Your task to perform on an android device: Open Maps and search for coffee Image 0: 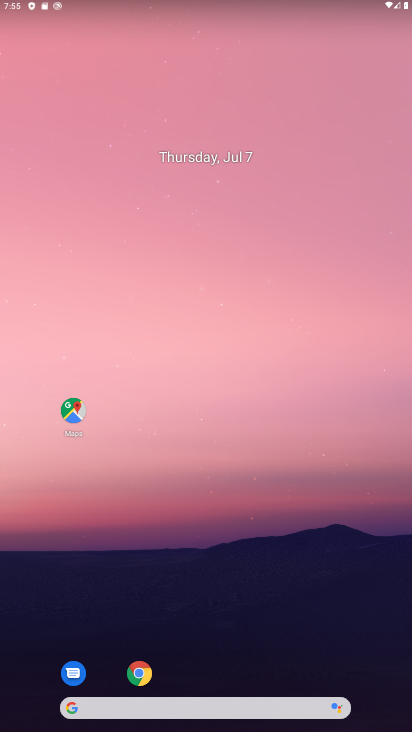
Step 0: click (78, 409)
Your task to perform on an android device: Open Maps and search for coffee Image 1: 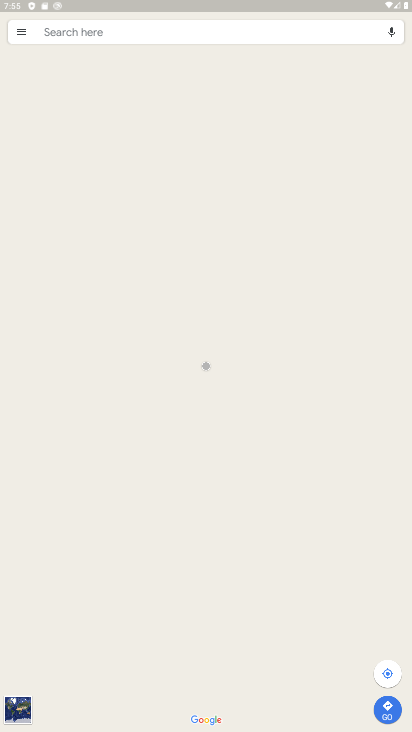
Step 1: click (184, 34)
Your task to perform on an android device: Open Maps and search for coffee Image 2: 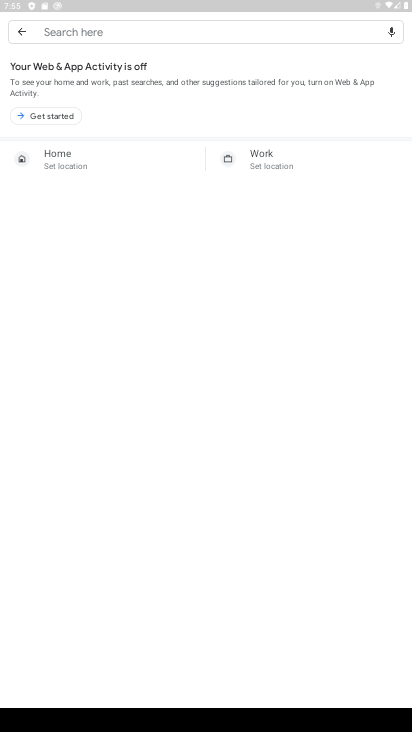
Step 2: type "coffee"
Your task to perform on an android device: Open Maps and search for coffee Image 3: 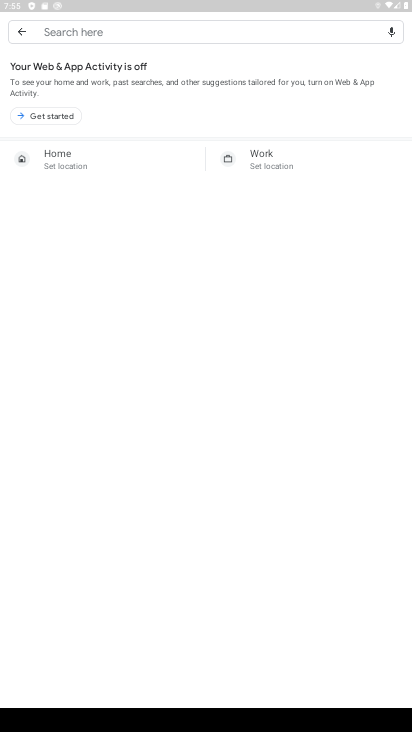
Step 3: click (124, 31)
Your task to perform on an android device: Open Maps and search for coffee Image 4: 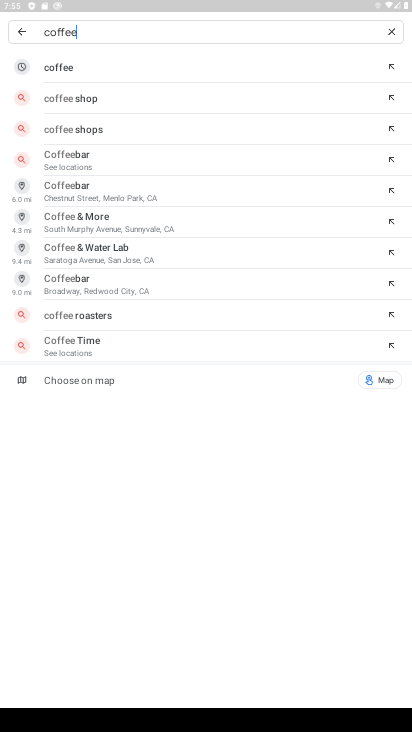
Step 4: click (42, 65)
Your task to perform on an android device: Open Maps and search for coffee Image 5: 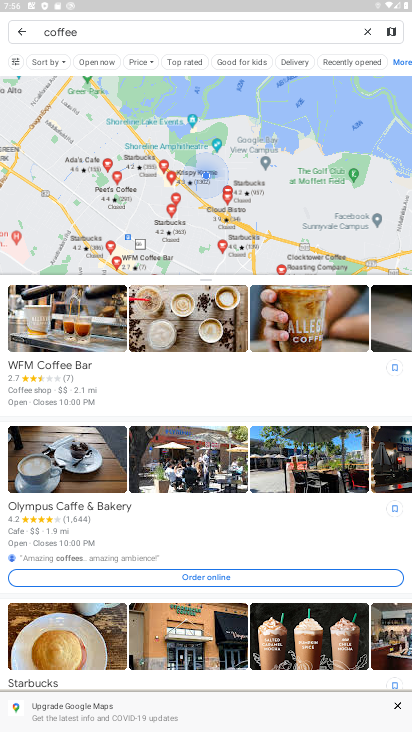
Step 5: task complete